Your task to perform on an android device: Open the stopwatch Image 0: 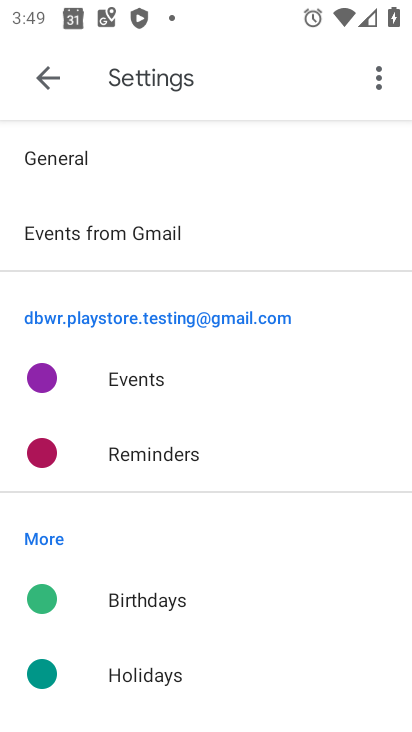
Step 0: press home button
Your task to perform on an android device: Open the stopwatch Image 1: 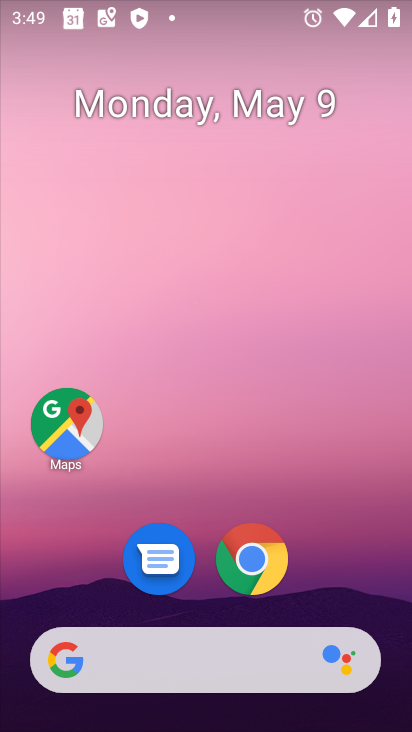
Step 1: drag from (203, 726) to (202, 150)
Your task to perform on an android device: Open the stopwatch Image 2: 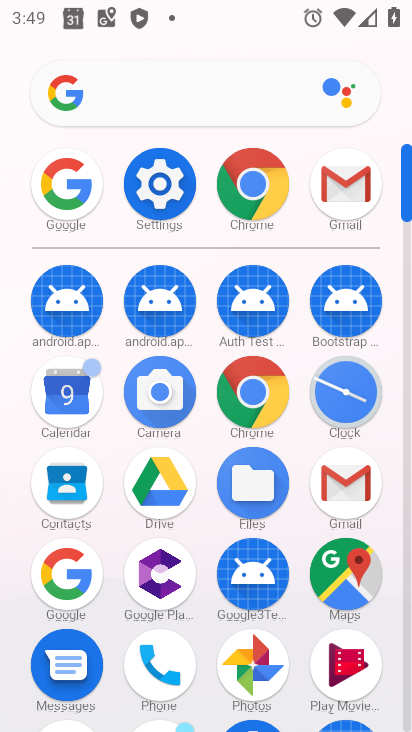
Step 2: click (338, 404)
Your task to perform on an android device: Open the stopwatch Image 3: 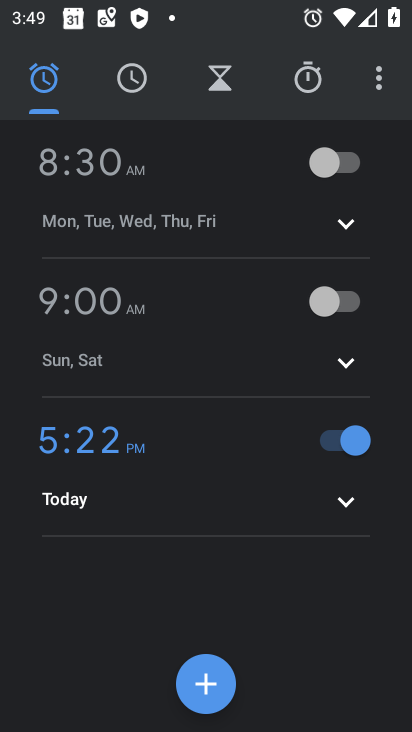
Step 3: click (317, 77)
Your task to perform on an android device: Open the stopwatch Image 4: 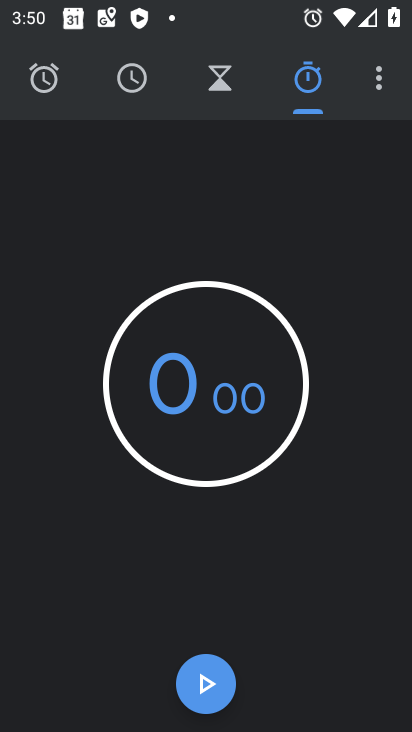
Step 4: task complete